Your task to perform on an android device: Open Google Maps Image 0: 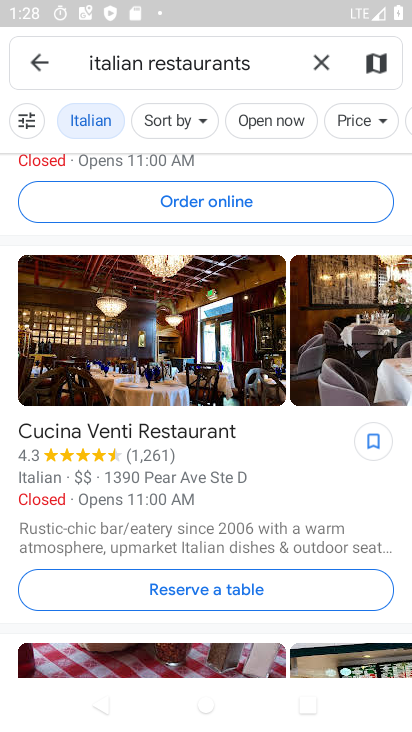
Step 0: drag from (235, 548) to (283, 83)
Your task to perform on an android device: Open Google Maps Image 1: 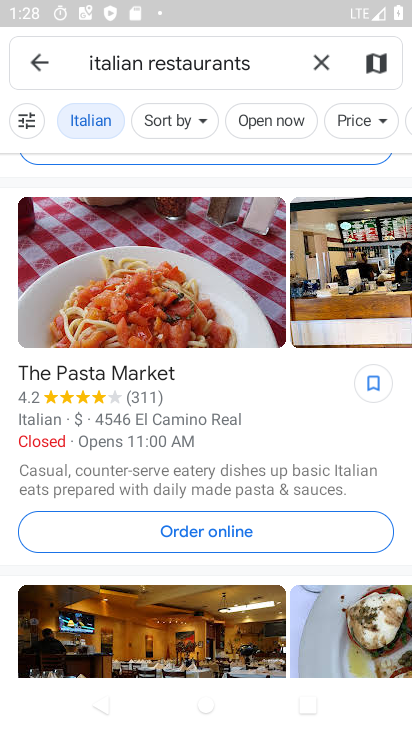
Step 1: task complete